Your task to perform on an android device: clear history in the chrome app Image 0: 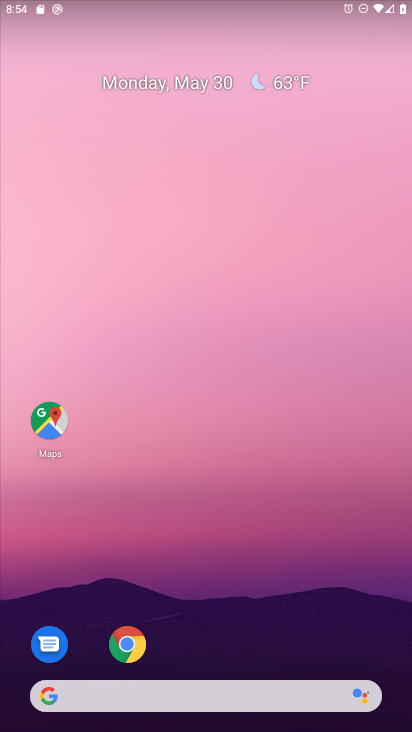
Step 0: click (128, 644)
Your task to perform on an android device: clear history in the chrome app Image 1: 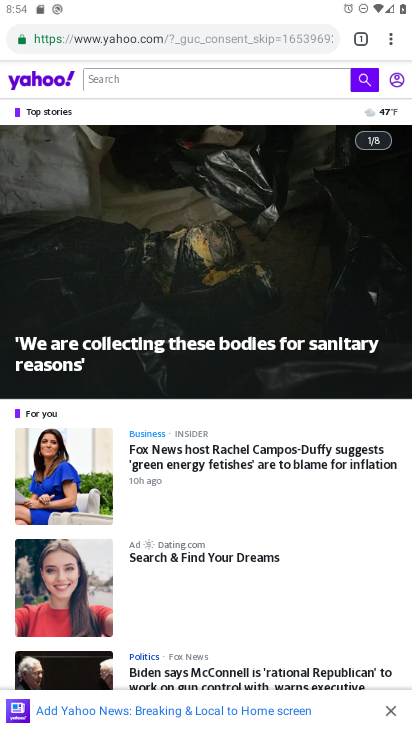
Step 1: click (385, 44)
Your task to perform on an android device: clear history in the chrome app Image 2: 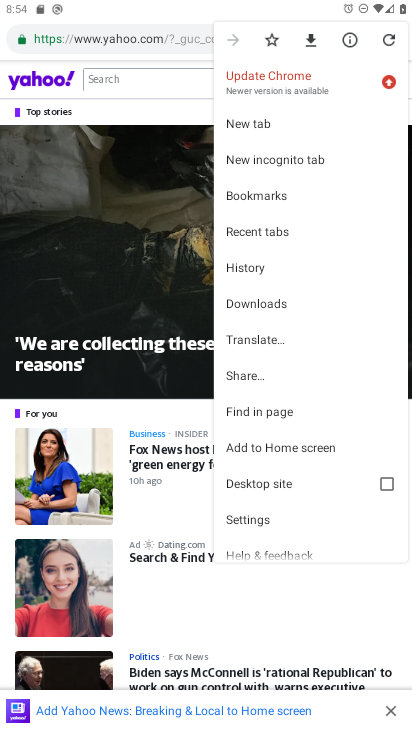
Step 2: click (241, 266)
Your task to perform on an android device: clear history in the chrome app Image 3: 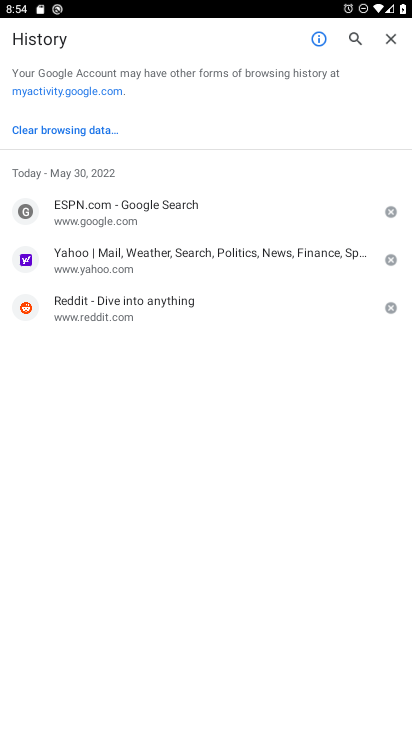
Step 3: click (91, 130)
Your task to perform on an android device: clear history in the chrome app Image 4: 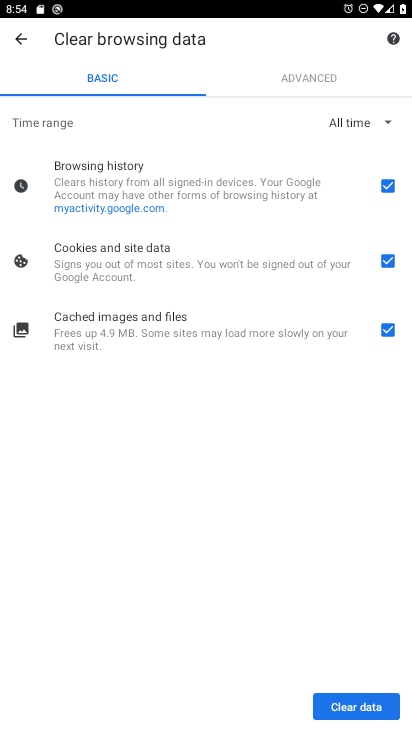
Step 4: click (391, 257)
Your task to perform on an android device: clear history in the chrome app Image 5: 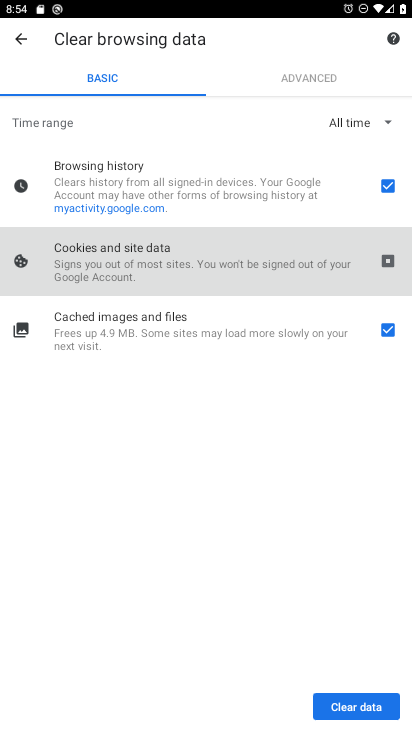
Step 5: click (388, 330)
Your task to perform on an android device: clear history in the chrome app Image 6: 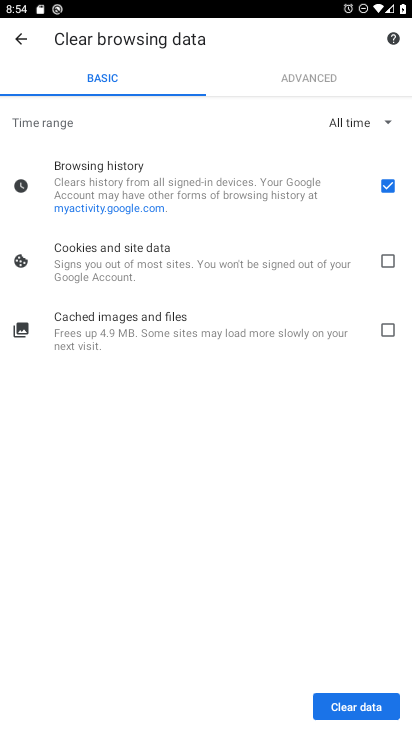
Step 6: click (356, 709)
Your task to perform on an android device: clear history in the chrome app Image 7: 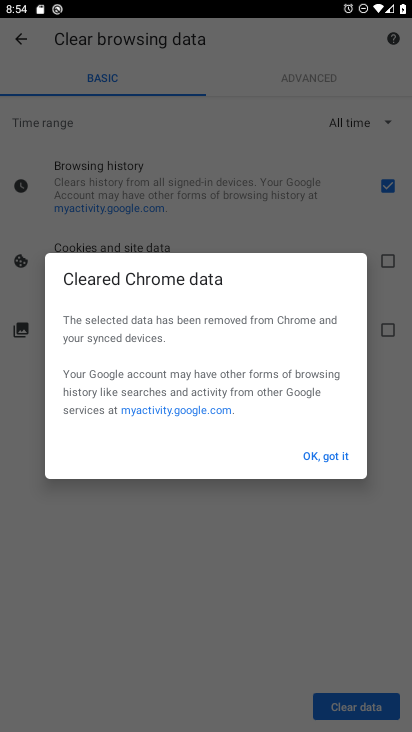
Step 7: click (316, 461)
Your task to perform on an android device: clear history in the chrome app Image 8: 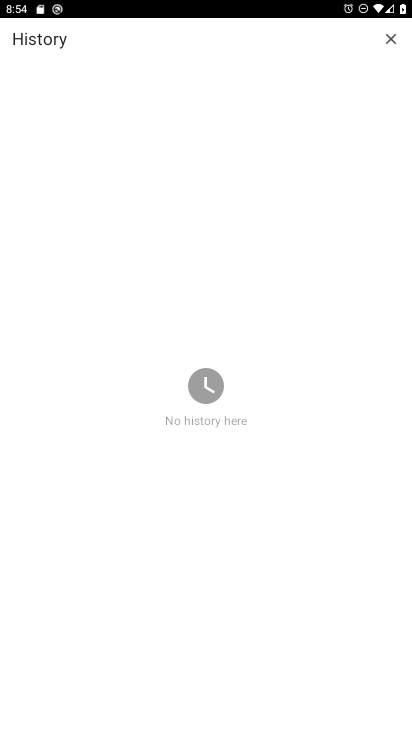
Step 8: task complete